Your task to perform on an android device: Open Chrome and go to settings Image 0: 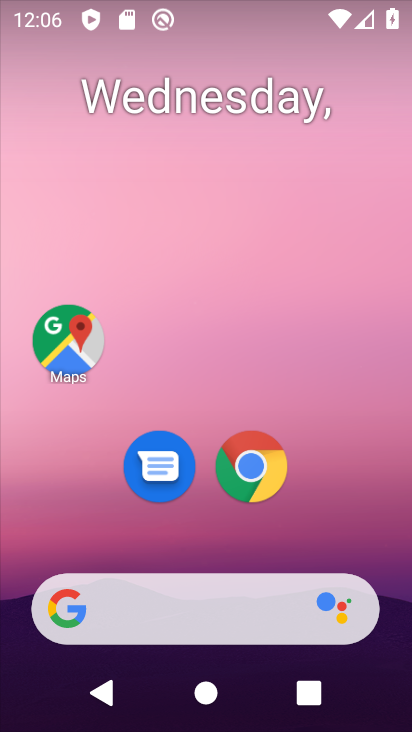
Step 0: click (267, 466)
Your task to perform on an android device: Open Chrome and go to settings Image 1: 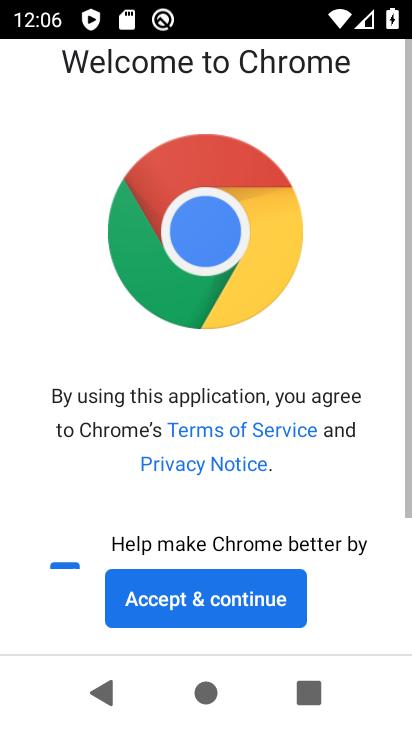
Step 1: click (221, 594)
Your task to perform on an android device: Open Chrome and go to settings Image 2: 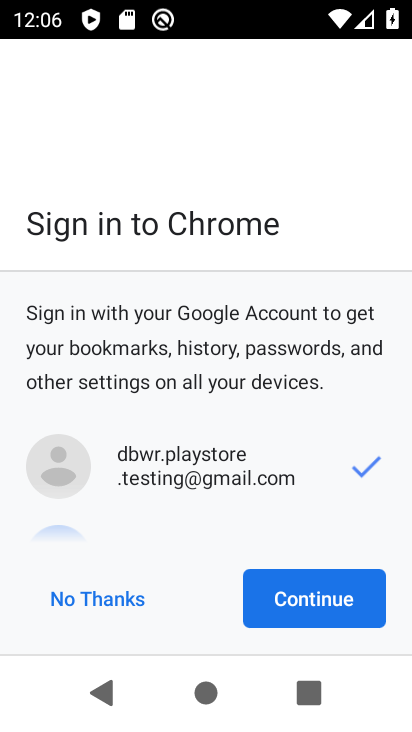
Step 2: click (337, 593)
Your task to perform on an android device: Open Chrome and go to settings Image 3: 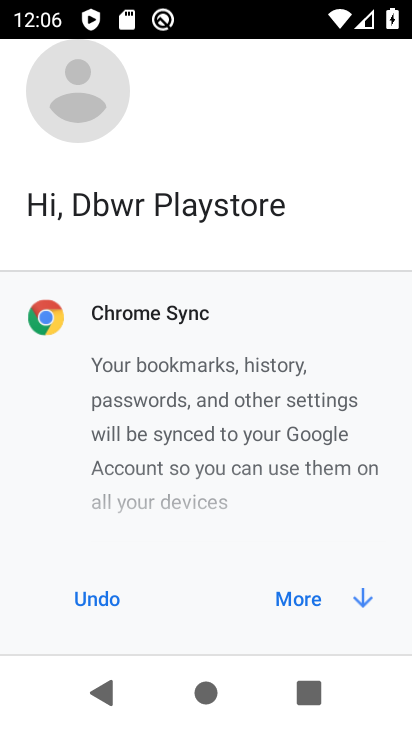
Step 3: click (337, 593)
Your task to perform on an android device: Open Chrome and go to settings Image 4: 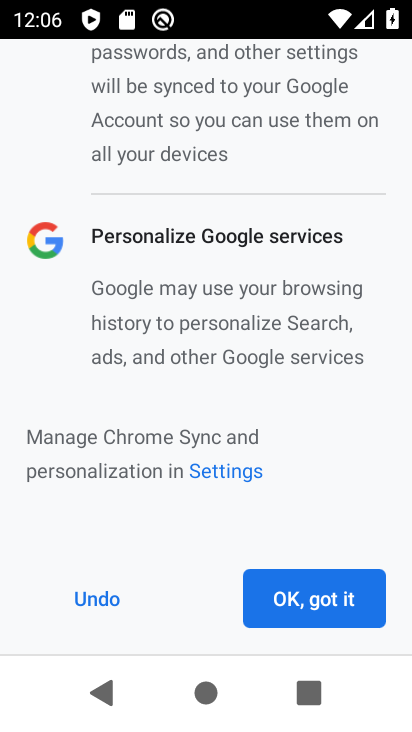
Step 4: click (337, 593)
Your task to perform on an android device: Open Chrome and go to settings Image 5: 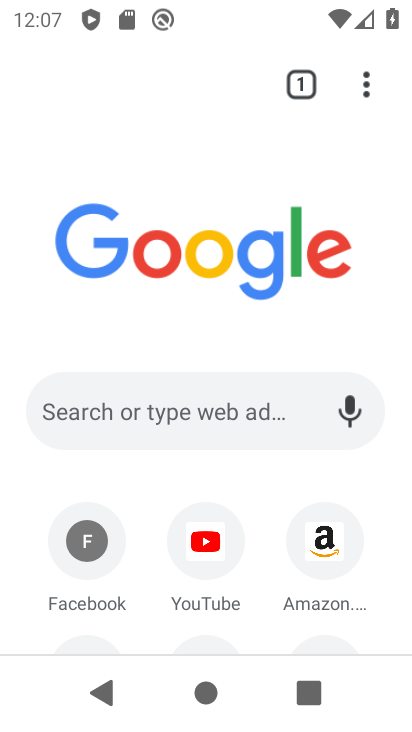
Step 5: task complete